Your task to perform on an android device: turn on notifications settings in the gmail app Image 0: 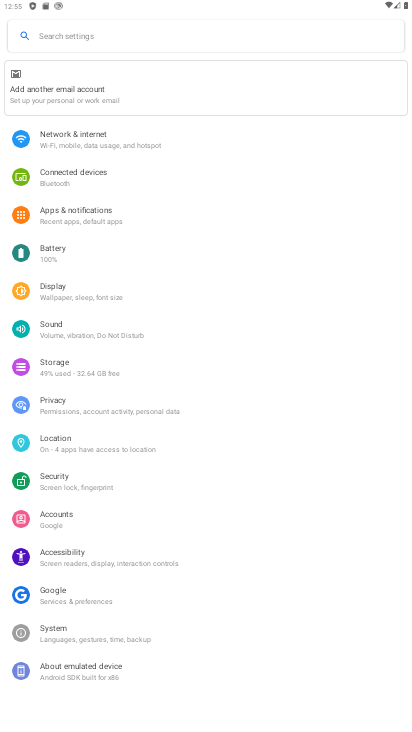
Step 0: press home button
Your task to perform on an android device: turn on notifications settings in the gmail app Image 1: 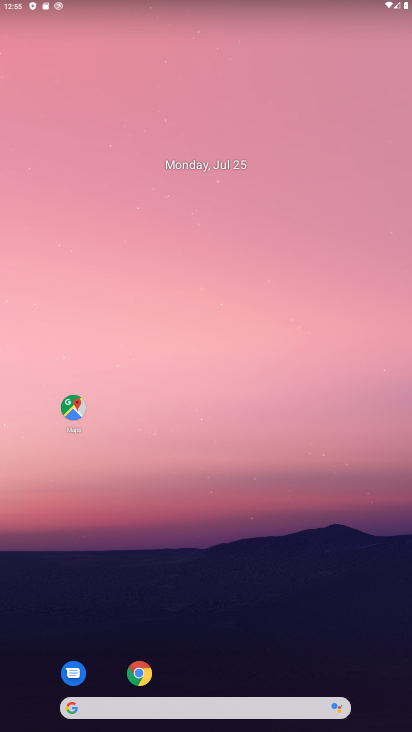
Step 1: drag from (237, 669) to (259, 161)
Your task to perform on an android device: turn on notifications settings in the gmail app Image 2: 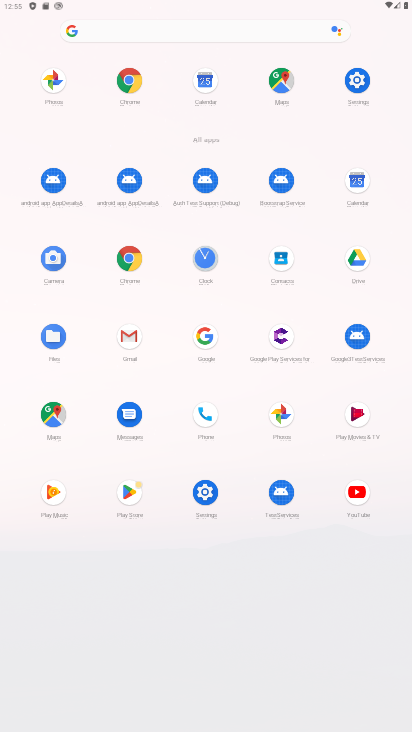
Step 2: click (129, 336)
Your task to perform on an android device: turn on notifications settings in the gmail app Image 3: 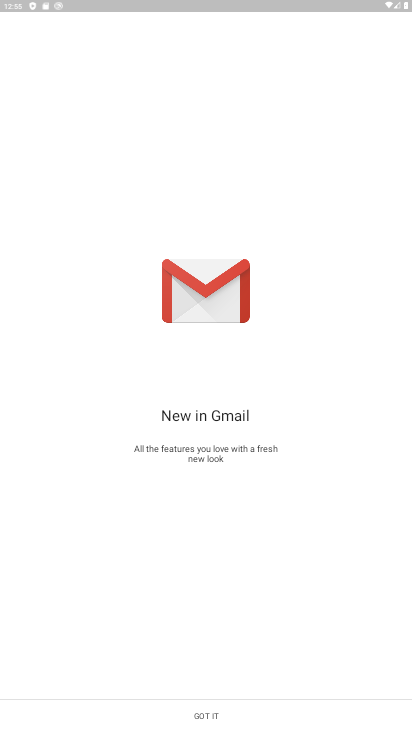
Step 3: click (204, 708)
Your task to perform on an android device: turn on notifications settings in the gmail app Image 4: 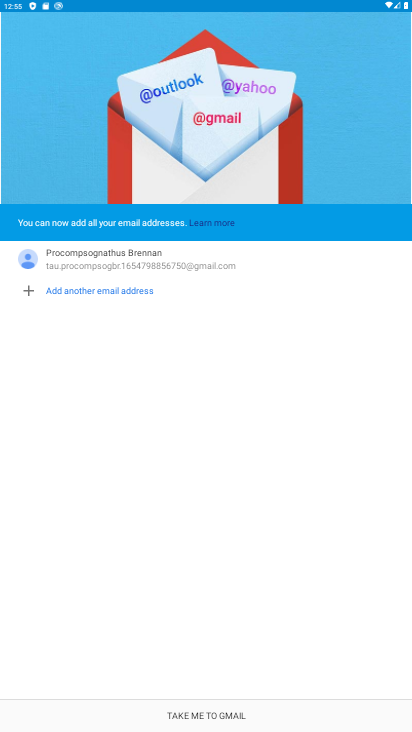
Step 4: click (204, 708)
Your task to perform on an android device: turn on notifications settings in the gmail app Image 5: 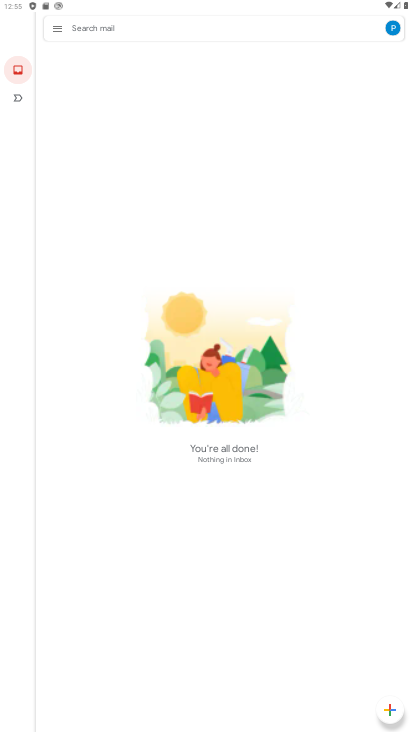
Step 5: click (56, 26)
Your task to perform on an android device: turn on notifications settings in the gmail app Image 6: 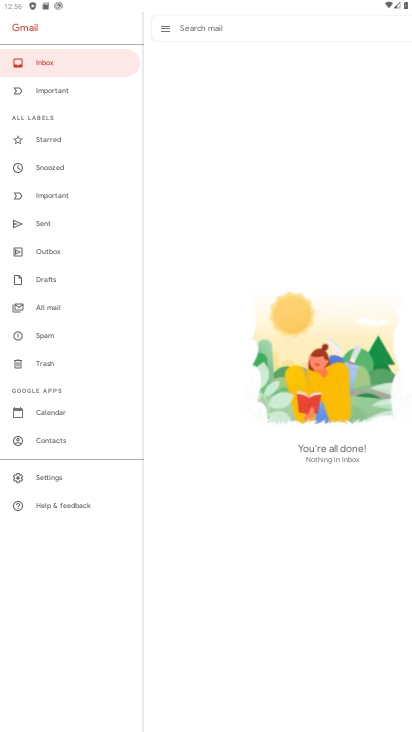
Step 6: click (44, 471)
Your task to perform on an android device: turn on notifications settings in the gmail app Image 7: 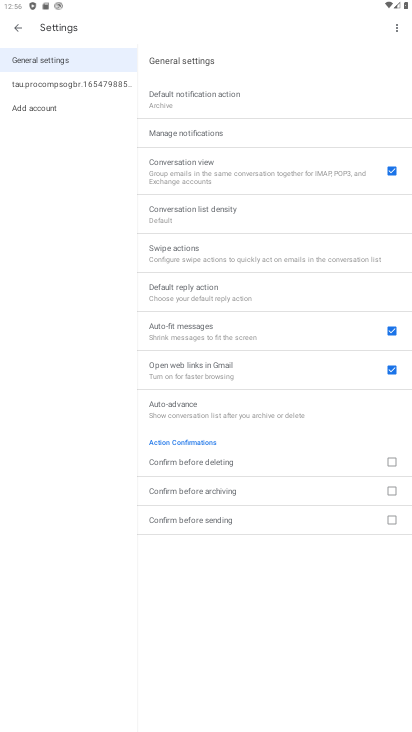
Step 7: click (57, 83)
Your task to perform on an android device: turn on notifications settings in the gmail app Image 8: 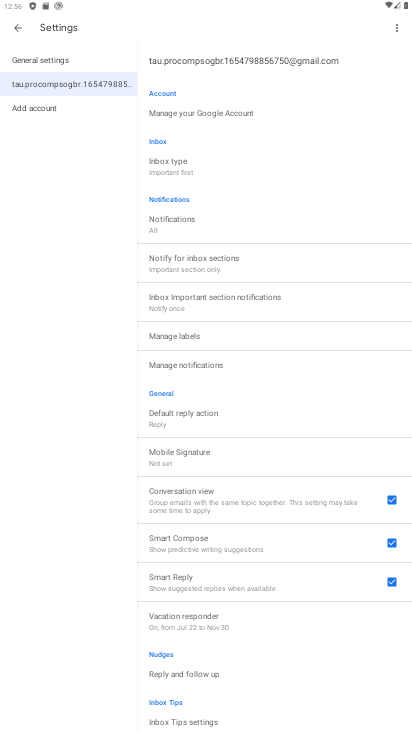
Step 8: click (181, 365)
Your task to perform on an android device: turn on notifications settings in the gmail app Image 9: 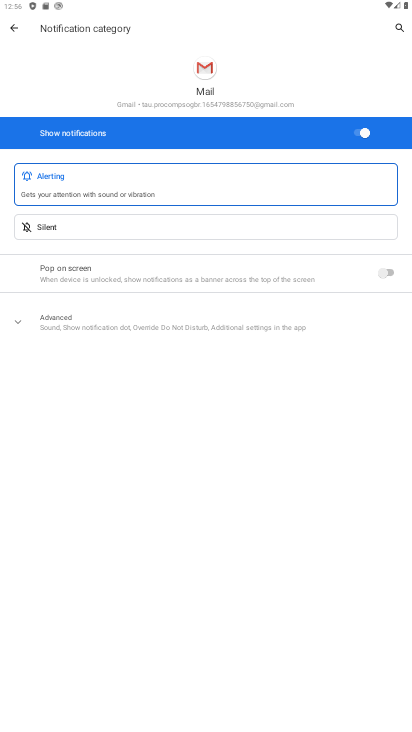
Step 9: task complete